Your task to perform on an android device: clear all cookies in the chrome app Image 0: 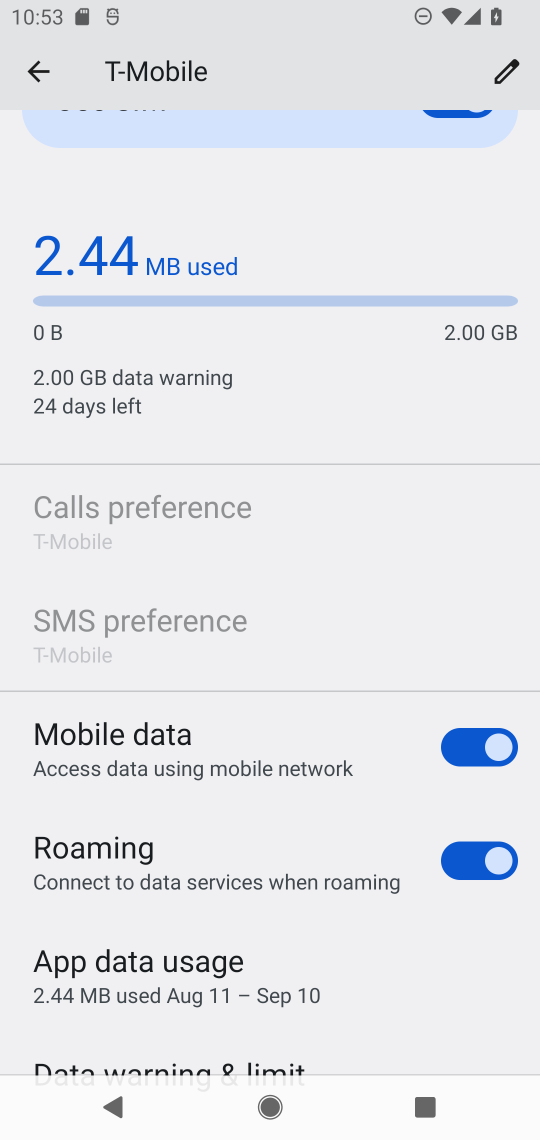
Step 0: press home button
Your task to perform on an android device: clear all cookies in the chrome app Image 1: 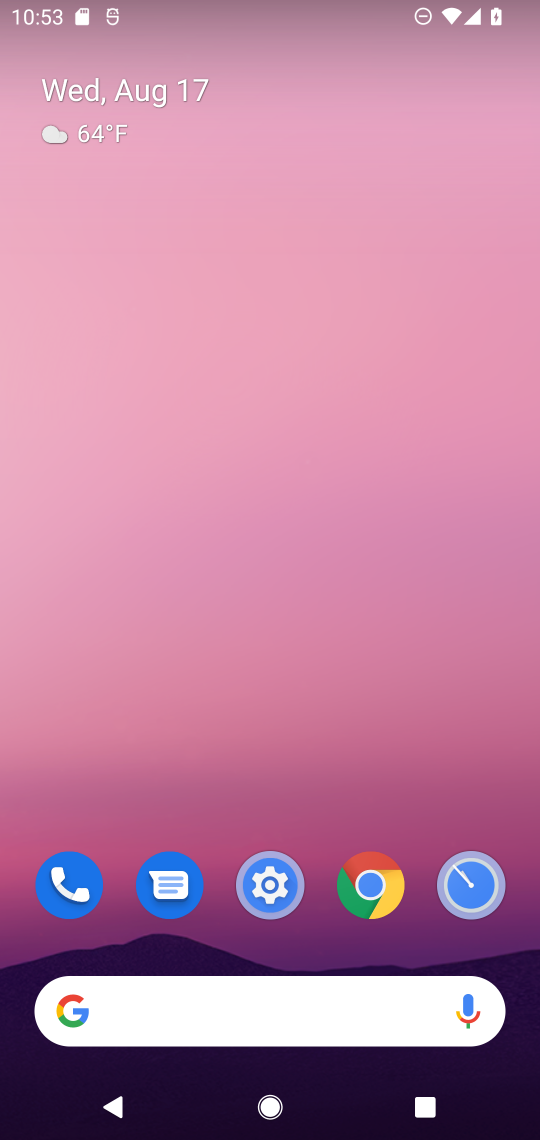
Step 1: click (373, 890)
Your task to perform on an android device: clear all cookies in the chrome app Image 2: 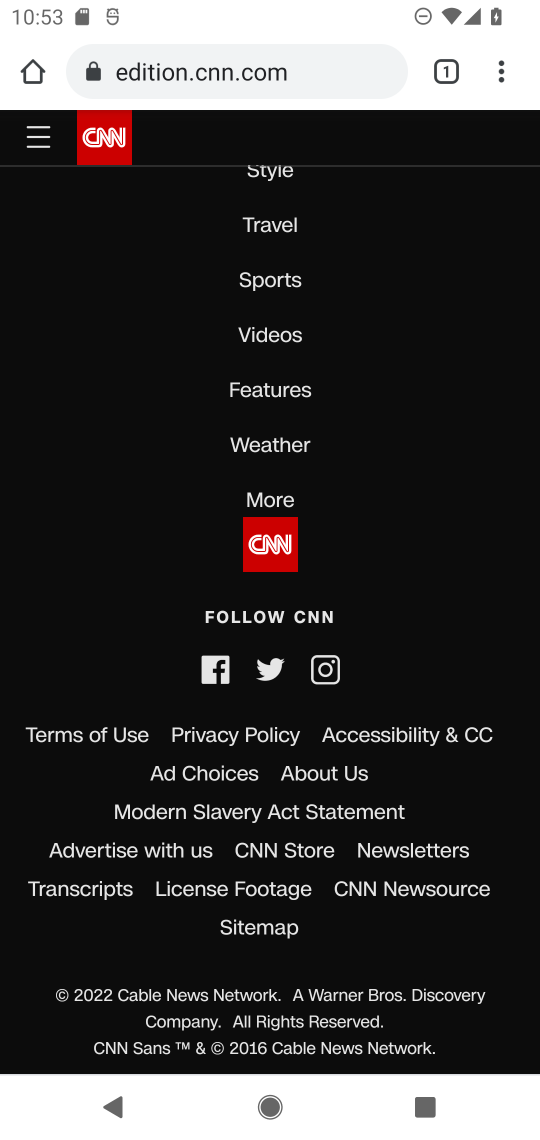
Step 2: click (494, 78)
Your task to perform on an android device: clear all cookies in the chrome app Image 3: 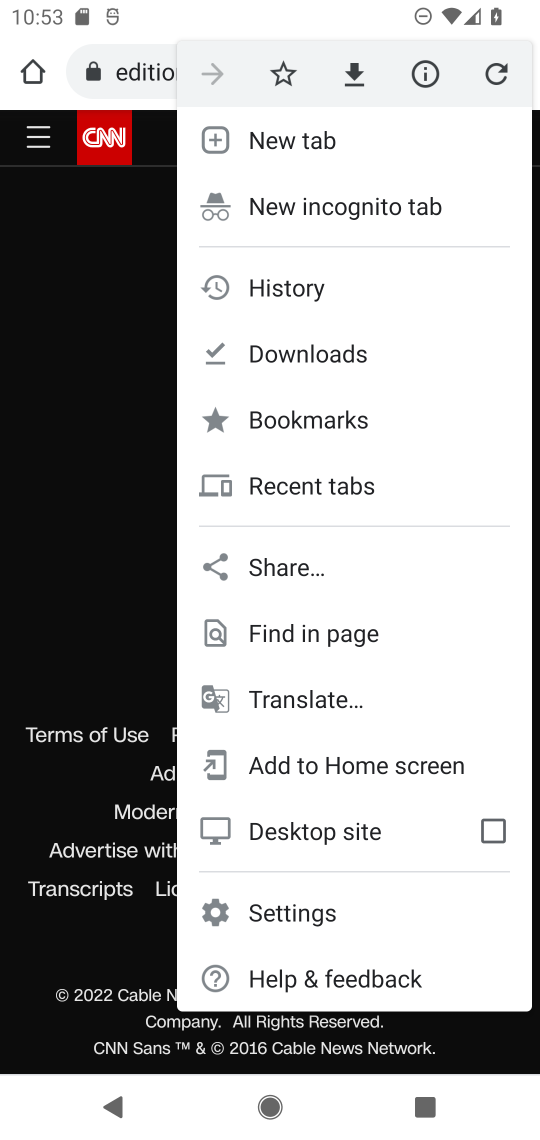
Step 3: click (269, 277)
Your task to perform on an android device: clear all cookies in the chrome app Image 4: 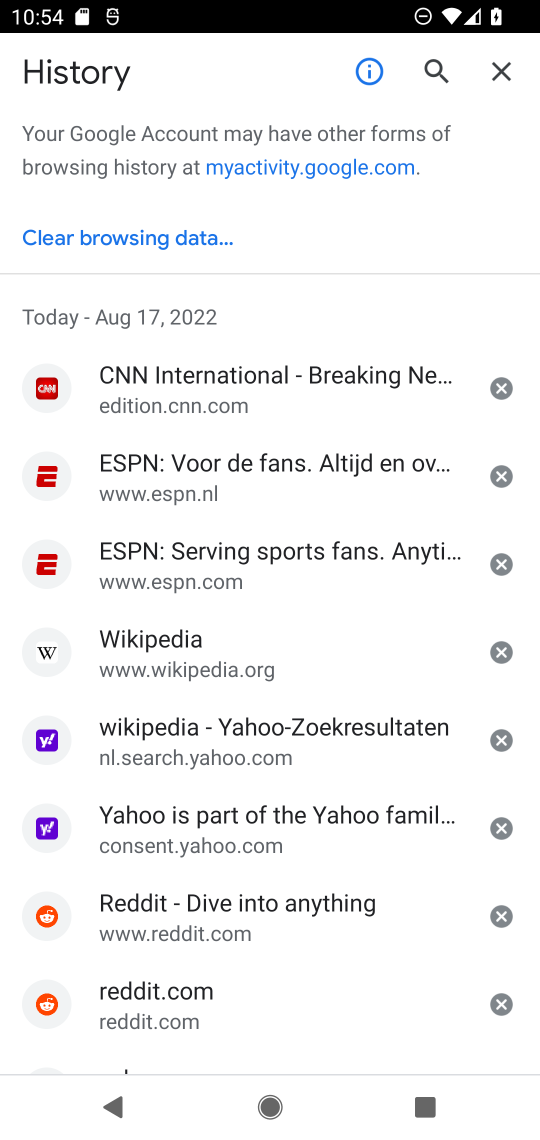
Step 4: click (112, 244)
Your task to perform on an android device: clear all cookies in the chrome app Image 5: 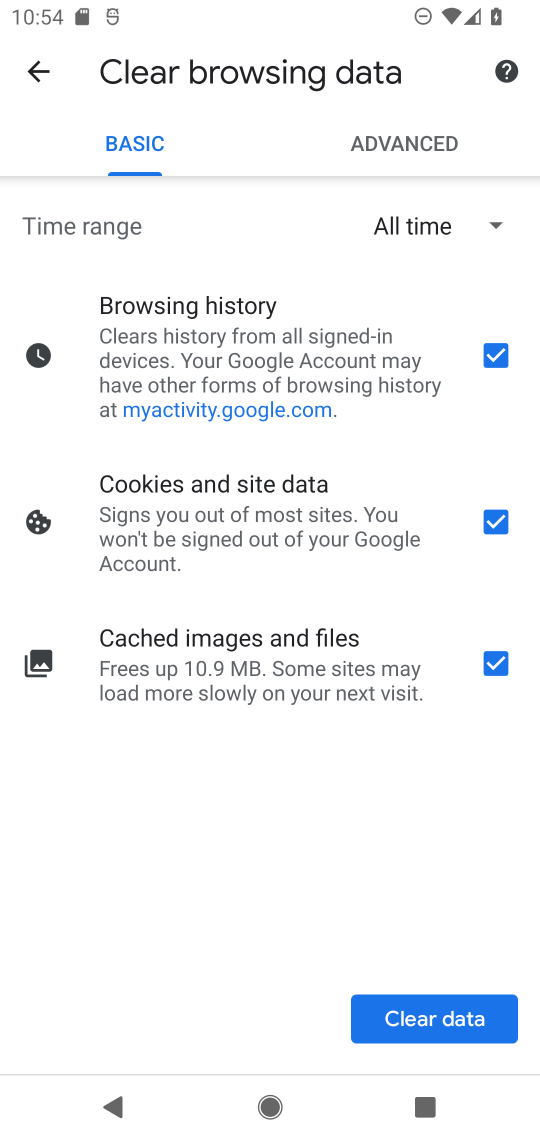
Step 5: click (493, 521)
Your task to perform on an android device: clear all cookies in the chrome app Image 6: 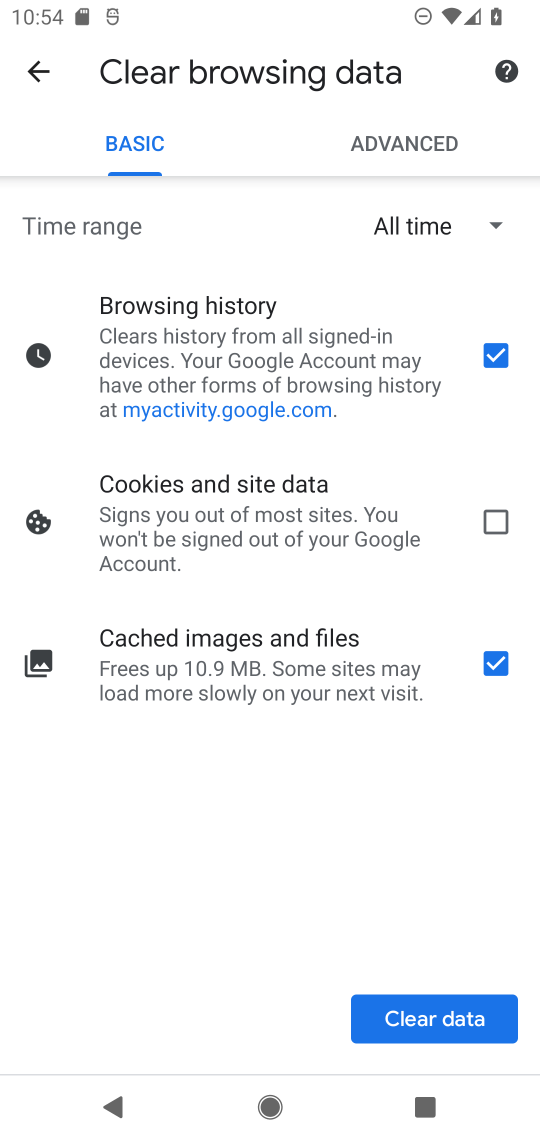
Step 6: click (495, 668)
Your task to perform on an android device: clear all cookies in the chrome app Image 7: 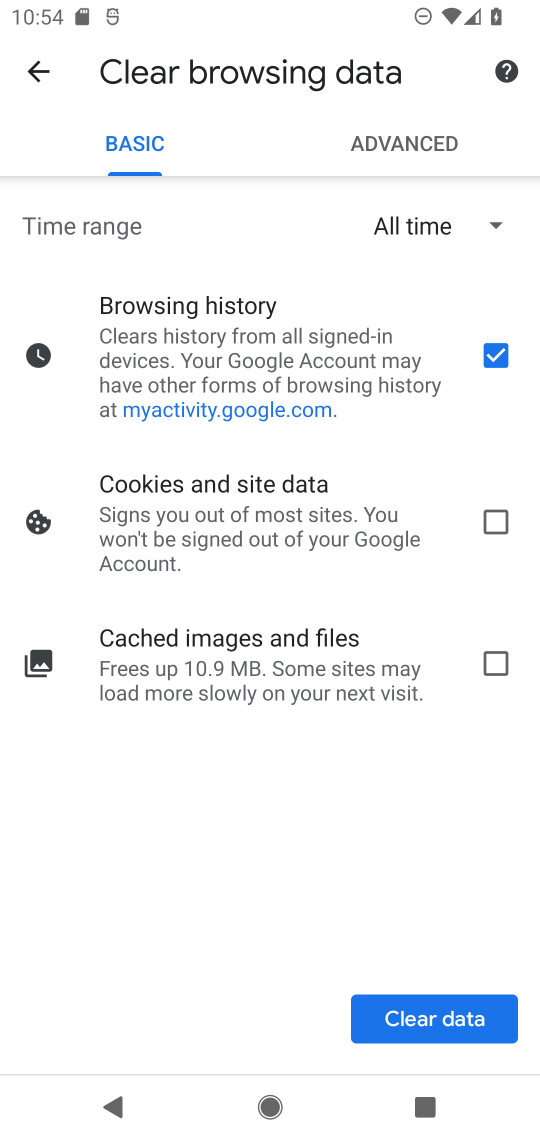
Step 7: click (494, 356)
Your task to perform on an android device: clear all cookies in the chrome app Image 8: 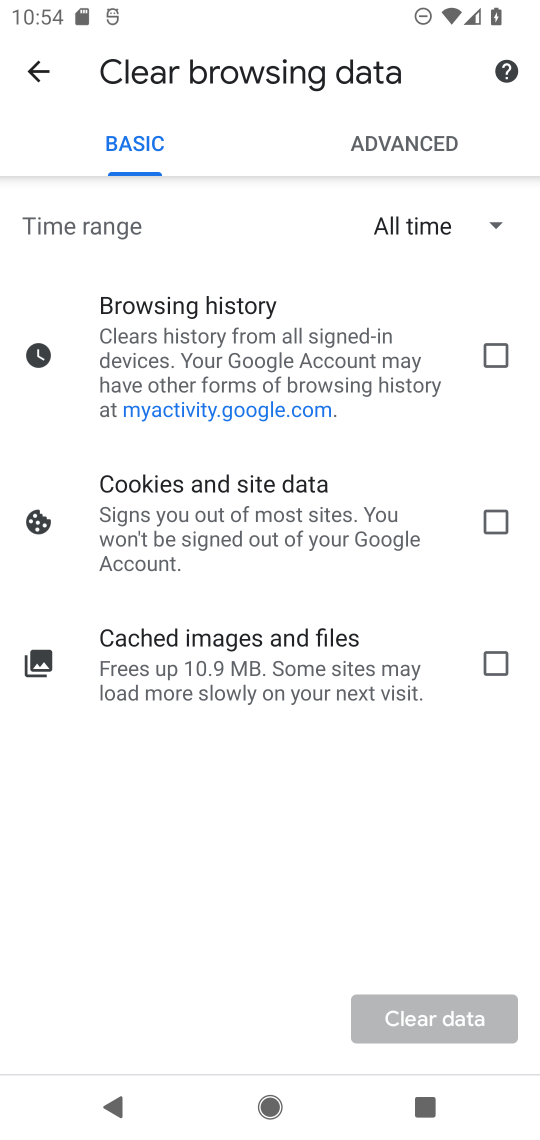
Step 8: click (493, 526)
Your task to perform on an android device: clear all cookies in the chrome app Image 9: 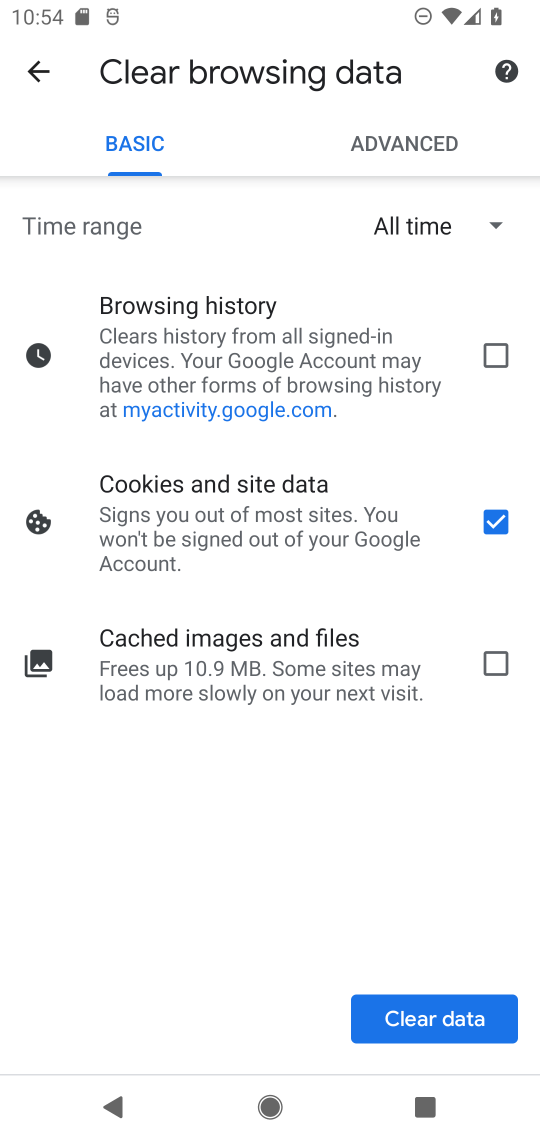
Step 9: click (438, 1016)
Your task to perform on an android device: clear all cookies in the chrome app Image 10: 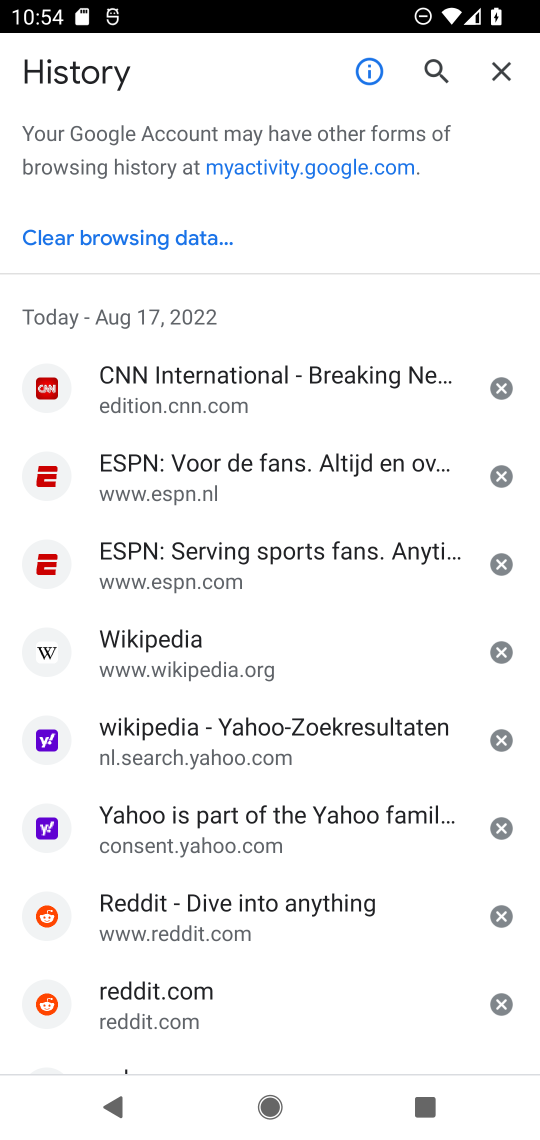
Step 10: task complete